Your task to perform on an android device: Go to display settings Image 0: 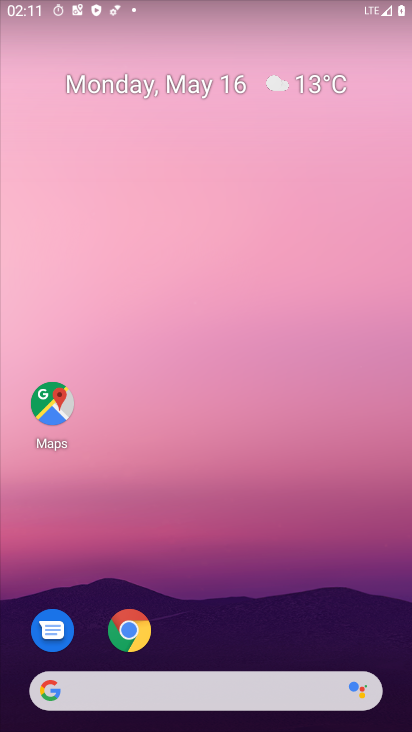
Step 0: drag from (342, 566) to (293, 193)
Your task to perform on an android device: Go to display settings Image 1: 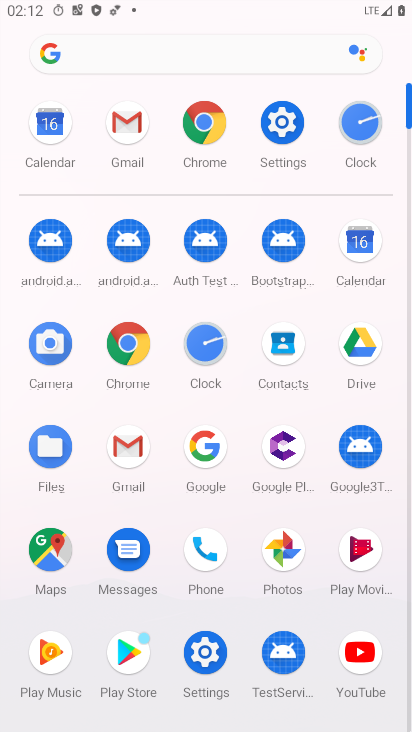
Step 1: click (204, 653)
Your task to perform on an android device: Go to display settings Image 2: 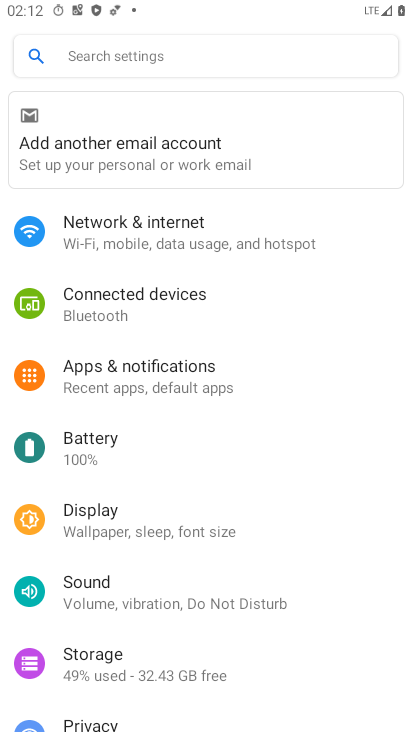
Step 2: click (147, 525)
Your task to perform on an android device: Go to display settings Image 3: 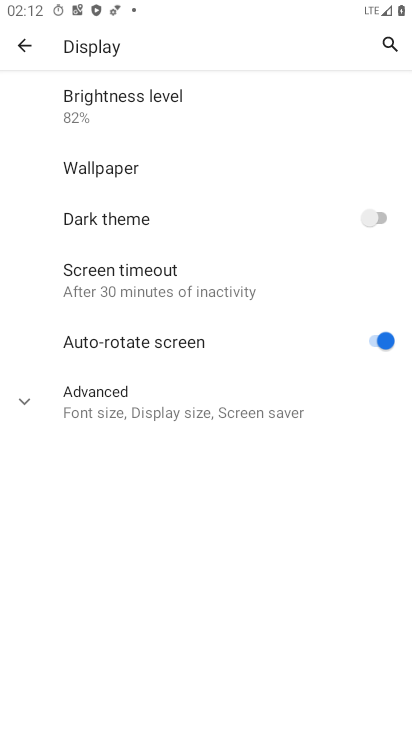
Step 3: click (211, 426)
Your task to perform on an android device: Go to display settings Image 4: 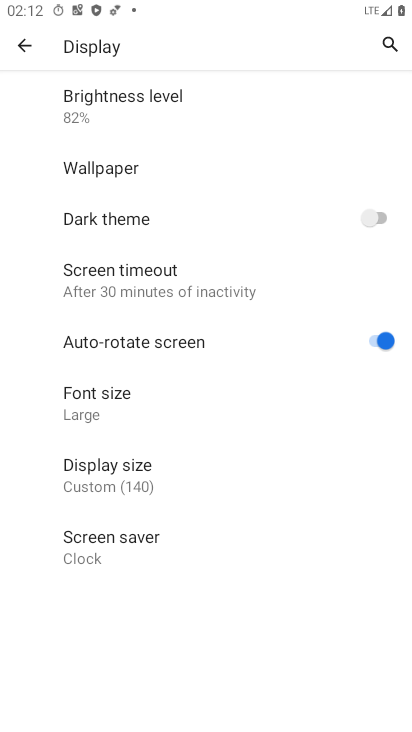
Step 4: click (121, 408)
Your task to perform on an android device: Go to display settings Image 5: 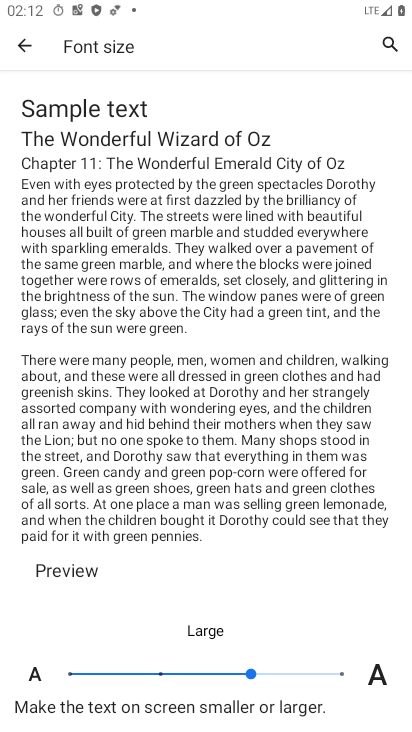
Step 5: click (29, 41)
Your task to perform on an android device: Go to display settings Image 6: 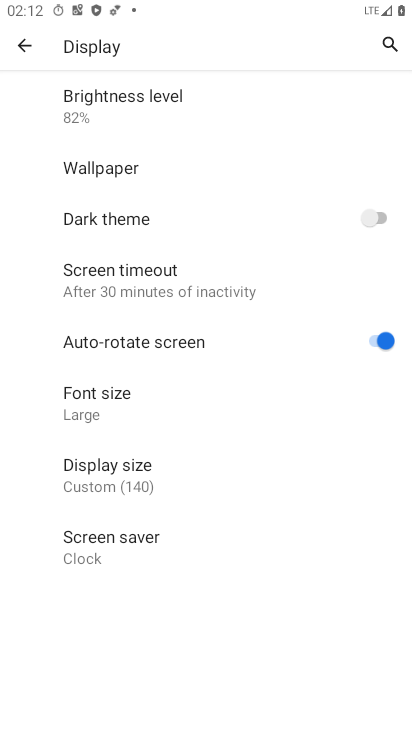
Step 6: task complete